Your task to perform on an android device: turn on showing notifications on the lock screen Image 0: 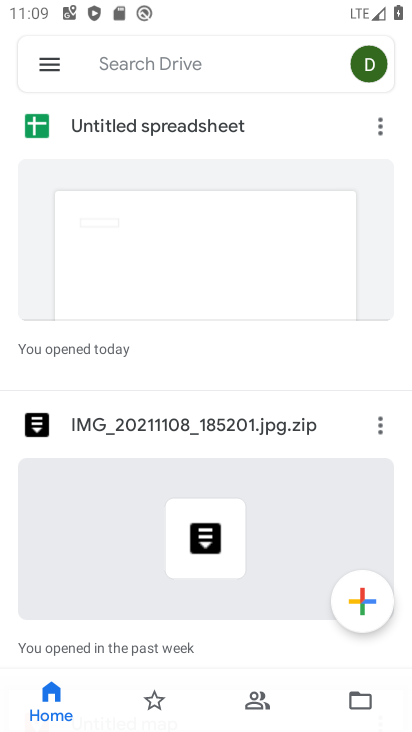
Step 0: press home button
Your task to perform on an android device: turn on showing notifications on the lock screen Image 1: 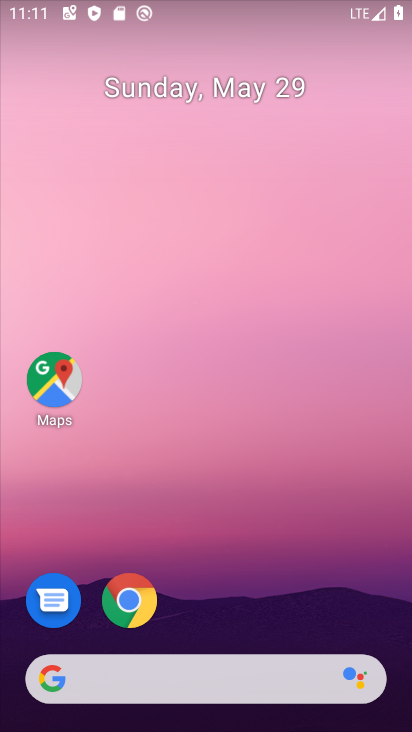
Step 1: drag from (242, 618) to (227, 178)
Your task to perform on an android device: turn on showing notifications on the lock screen Image 2: 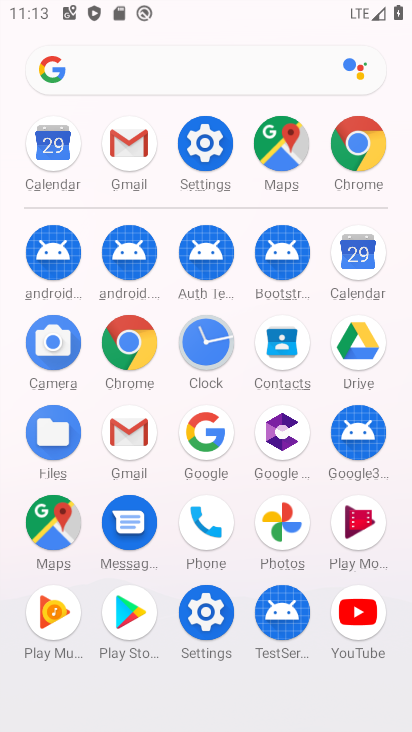
Step 2: click (198, 621)
Your task to perform on an android device: turn on showing notifications on the lock screen Image 3: 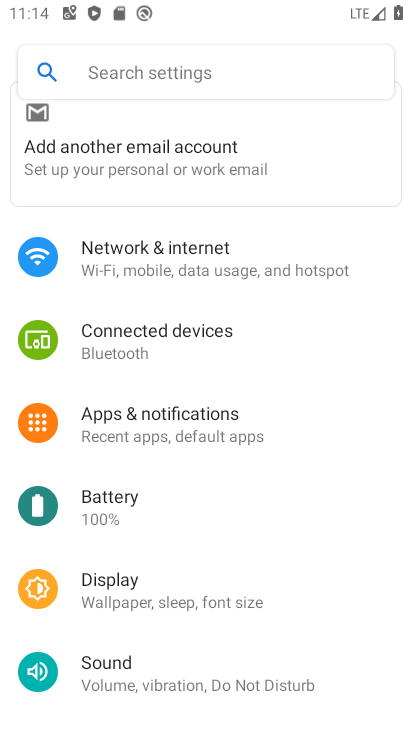
Step 3: click (145, 421)
Your task to perform on an android device: turn on showing notifications on the lock screen Image 4: 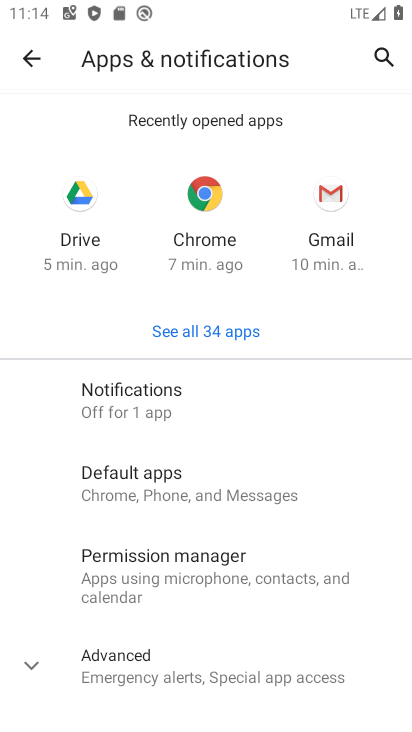
Step 4: click (145, 396)
Your task to perform on an android device: turn on showing notifications on the lock screen Image 5: 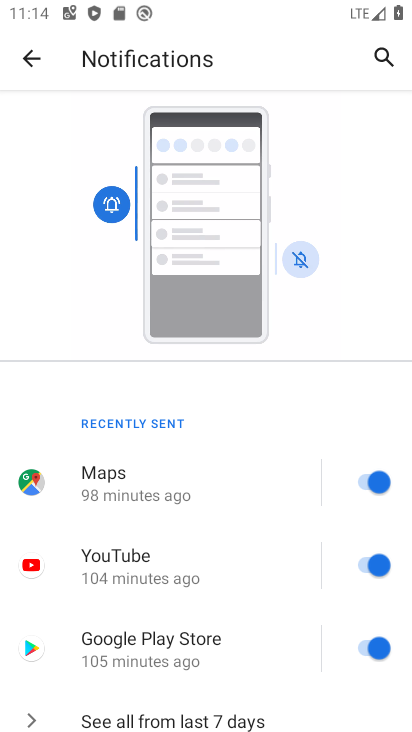
Step 5: drag from (227, 653) to (237, 110)
Your task to perform on an android device: turn on showing notifications on the lock screen Image 6: 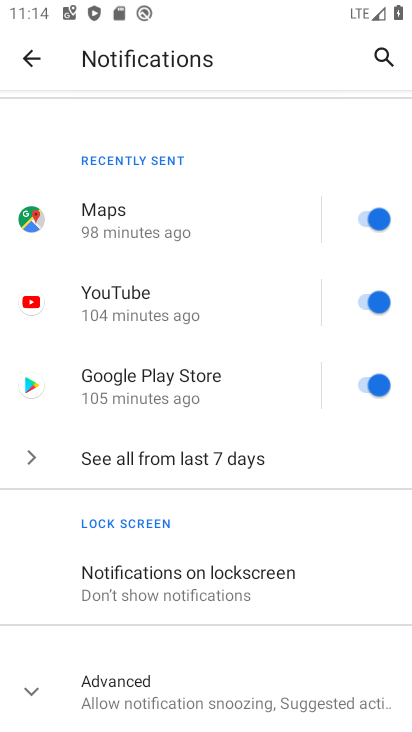
Step 6: click (123, 582)
Your task to perform on an android device: turn on showing notifications on the lock screen Image 7: 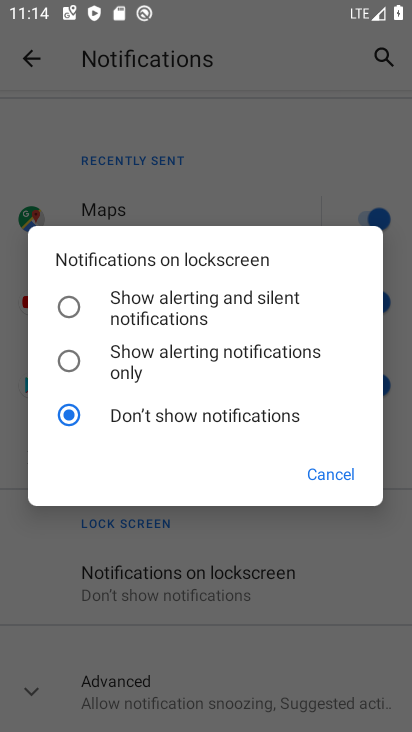
Step 7: click (240, 311)
Your task to perform on an android device: turn on showing notifications on the lock screen Image 8: 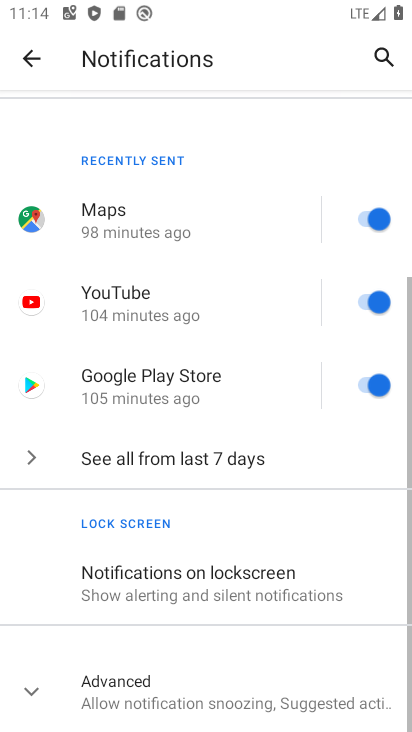
Step 8: task complete